Your task to perform on an android device: Check the news Image 0: 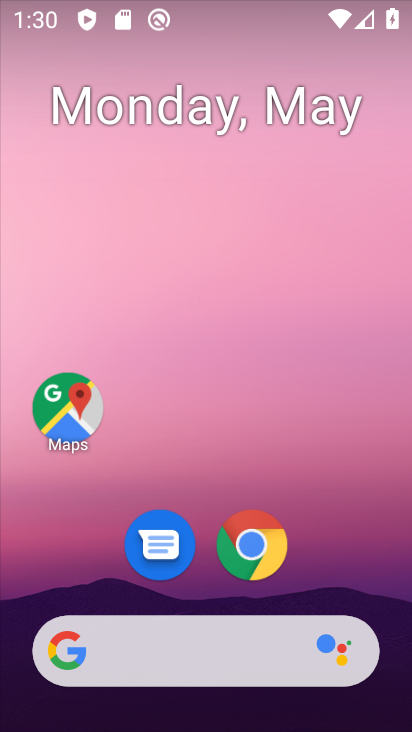
Step 0: click (207, 650)
Your task to perform on an android device: Check the news Image 1: 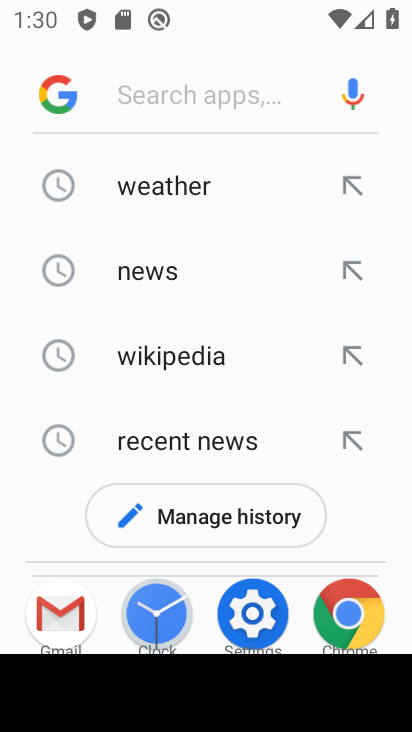
Step 1: click (181, 264)
Your task to perform on an android device: Check the news Image 2: 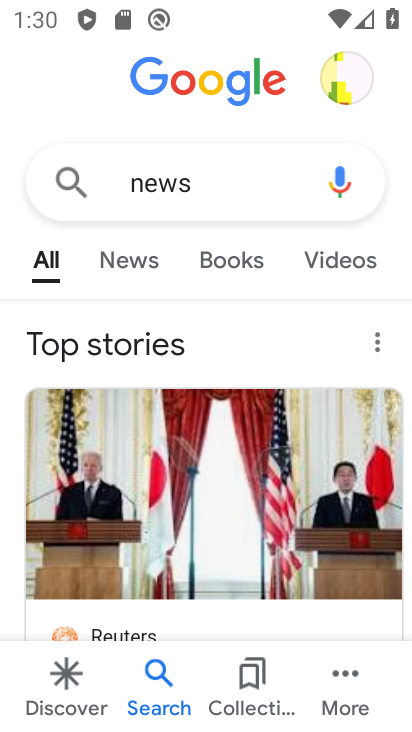
Step 2: task complete